Your task to perform on an android device: Open Yahoo.com Image 0: 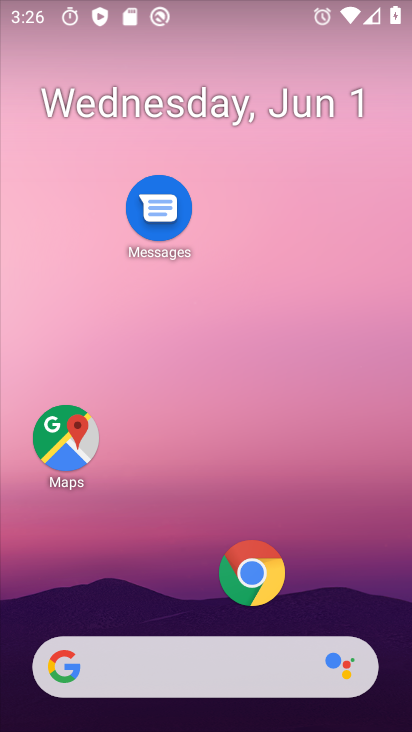
Step 0: click (252, 551)
Your task to perform on an android device: Open Yahoo.com Image 1: 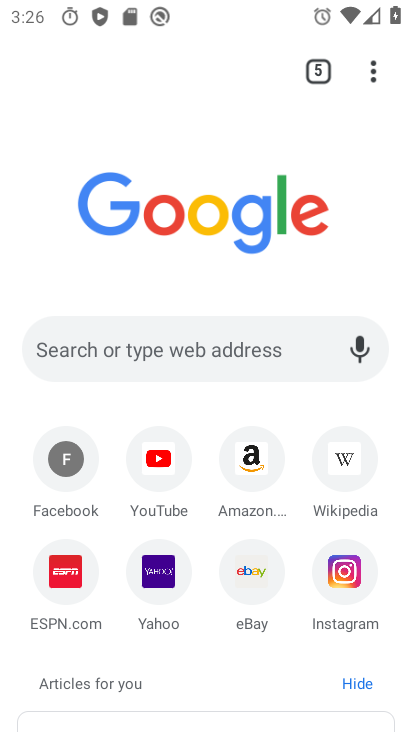
Step 1: click (162, 572)
Your task to perform on an android device: Open Yahoo.com Image 2: 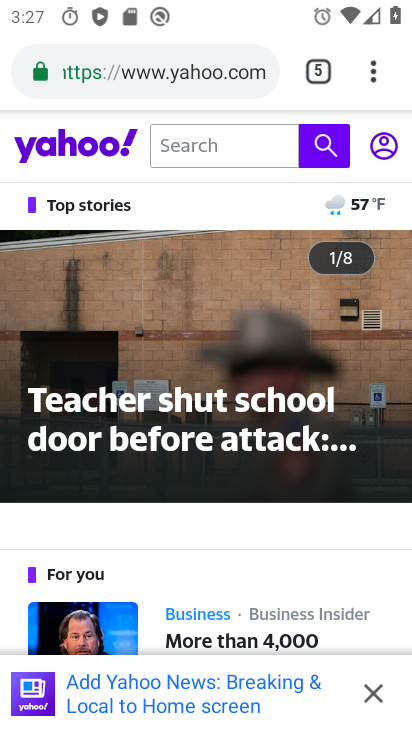
Step 2: task complete